Your task to perform on an android device: What's on my calendar tomorrow? Image 0: 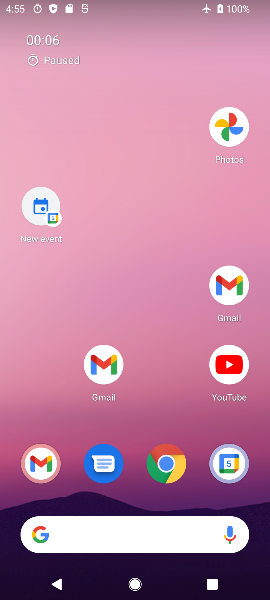
Step 0: click (150, 241)
Your task to perform on an android device: What's on my calendar tomorrow? Image 1: 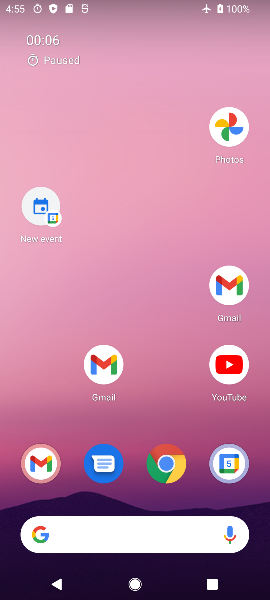
Step 1: drag from (188, 514) to (173, 233)
Your task to perform on an android device: What's on my calendar tomorrow? Image 2: 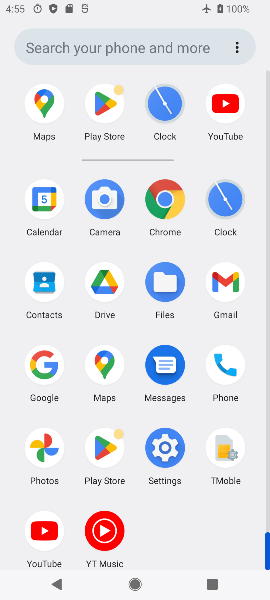
Step 2: drag from (184, 454) to (184, 227)
Your task to perform on an android device: What's on my calendar tomorrow? Image 3: 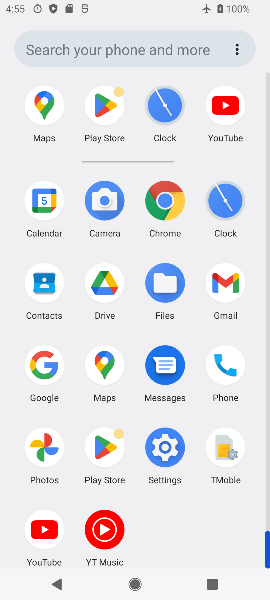
Step 3: click (43, 202)
Your task to perform on an android device: What's on my calendar tomorrow? Image 4: 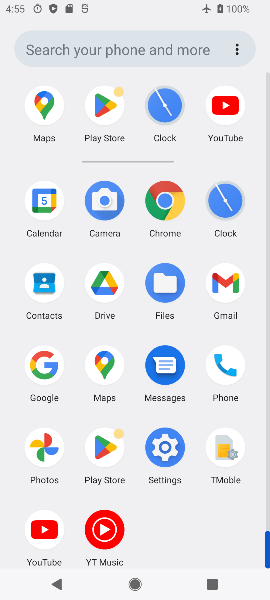
Step 4: click (43, 202)
Your task to perform on an android device: What's on my calendar tomorrow? Image 5: 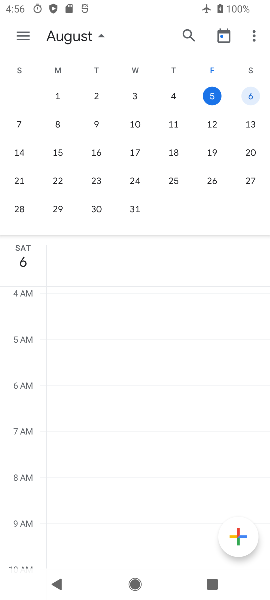
Step 5: click (43, 202)
Your task to perform on an android device: What's on my calendar tomorrow? Image 6: 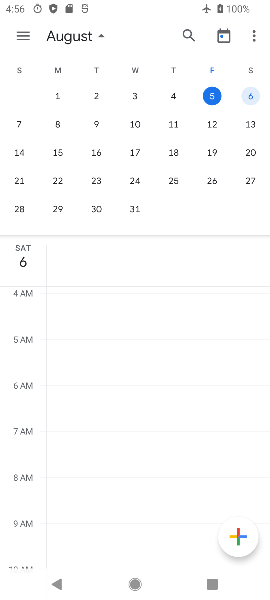
Step 6: click (241, 99)
Your task to perform on an android device: What's on my calendar tomorrow? Image 7: 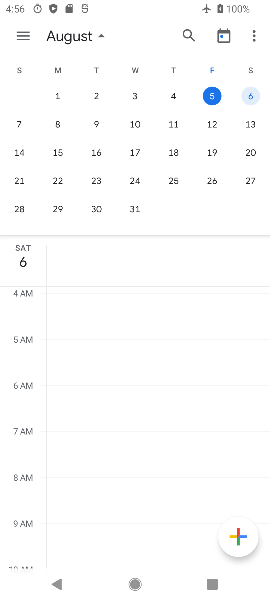
Step 7: click (241, 96)
Your task to perform on an android device: What's on my calendar tomorrow? Image 8: 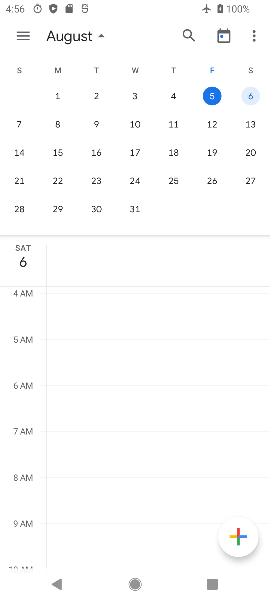
Step 8: click (250, 96)
Your task to perform on an android device: What's on my calendar tomorrow? Image 9: 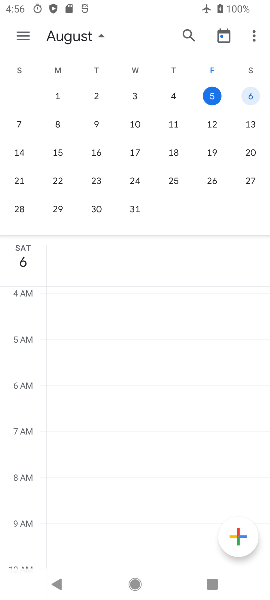
Step 9: task complete